Your task to perform on an android device: Go to Wikipedia Image 0: 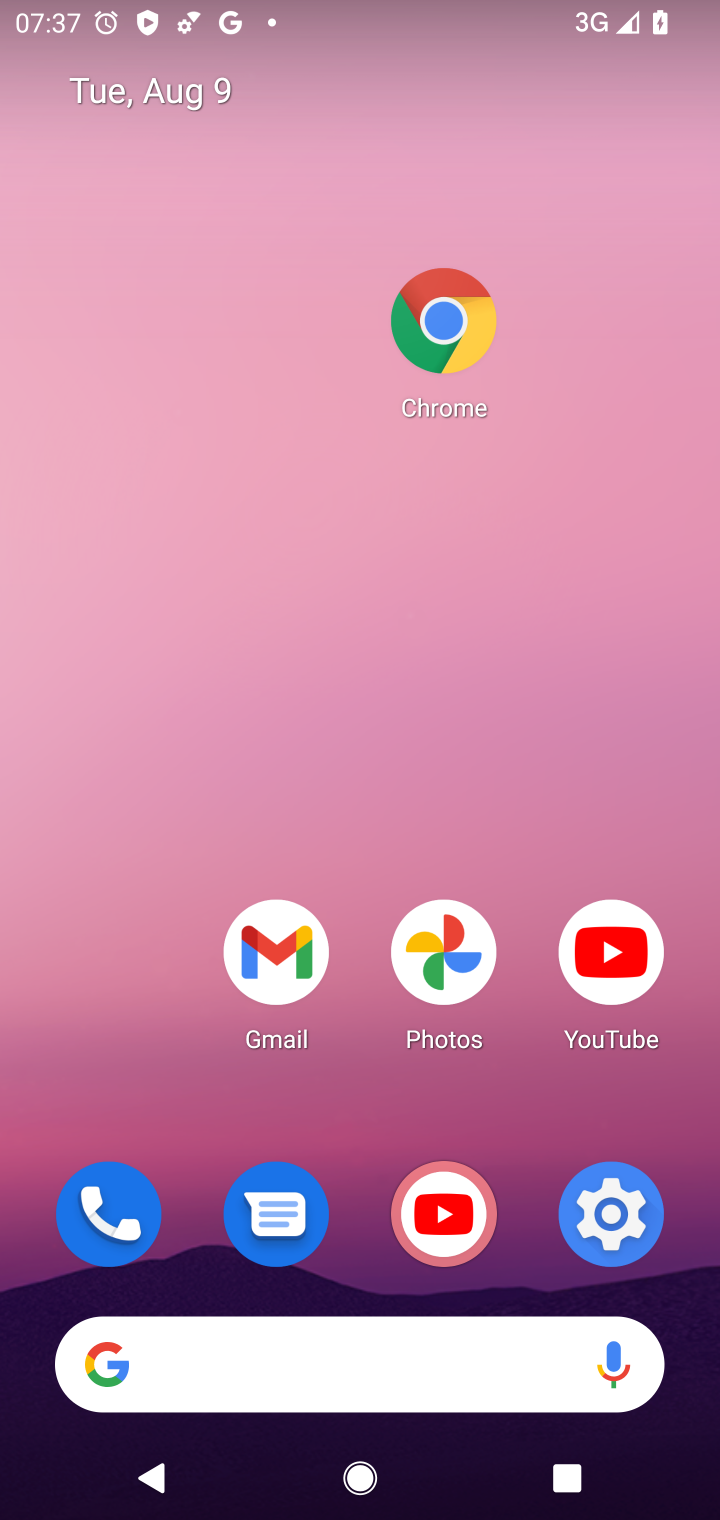
Step 0: drag from (504, 1405) to (300, 400)
Your task to perform on an android device: Go to Wikipedia Image 1: 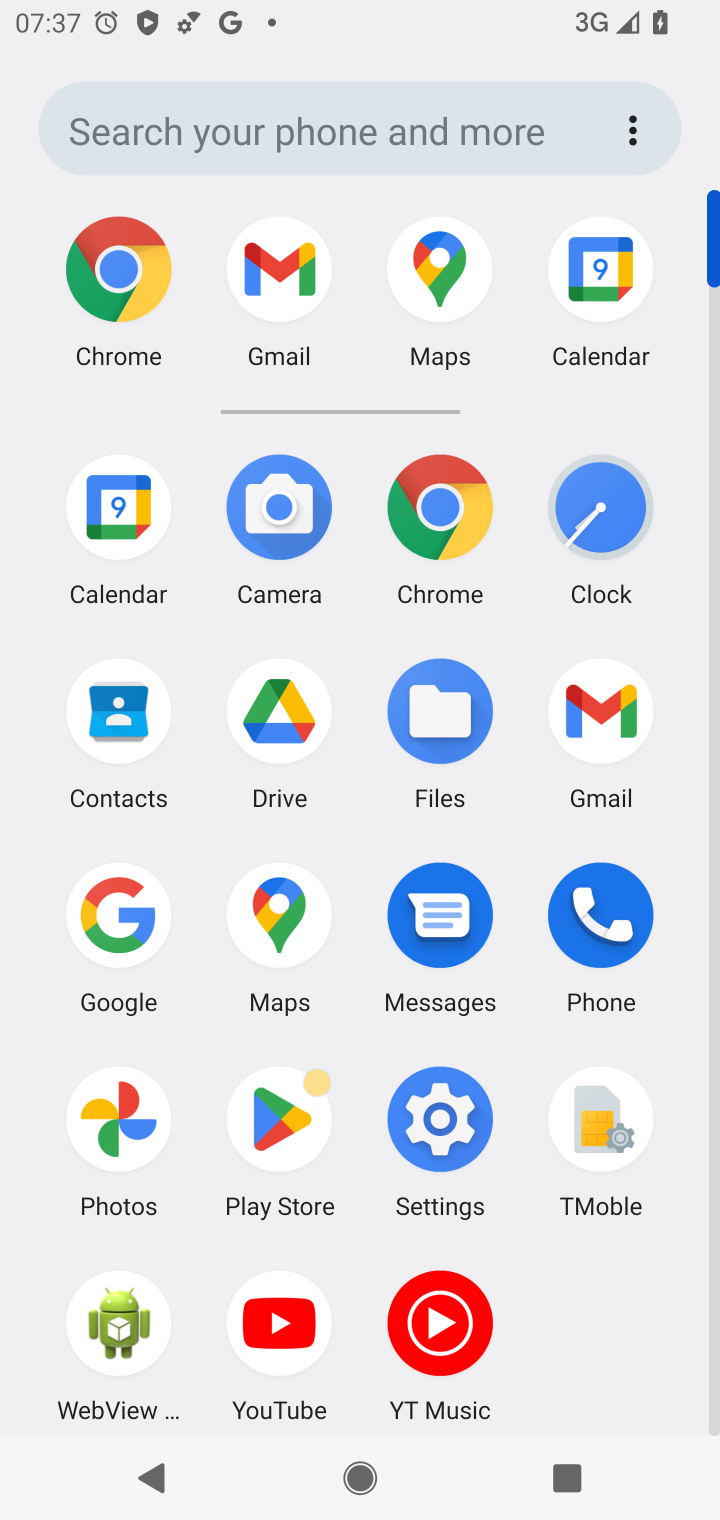
Step 1: click (101, 237)
Your task to perform on an android device: Go to Wikipedia Image 2: 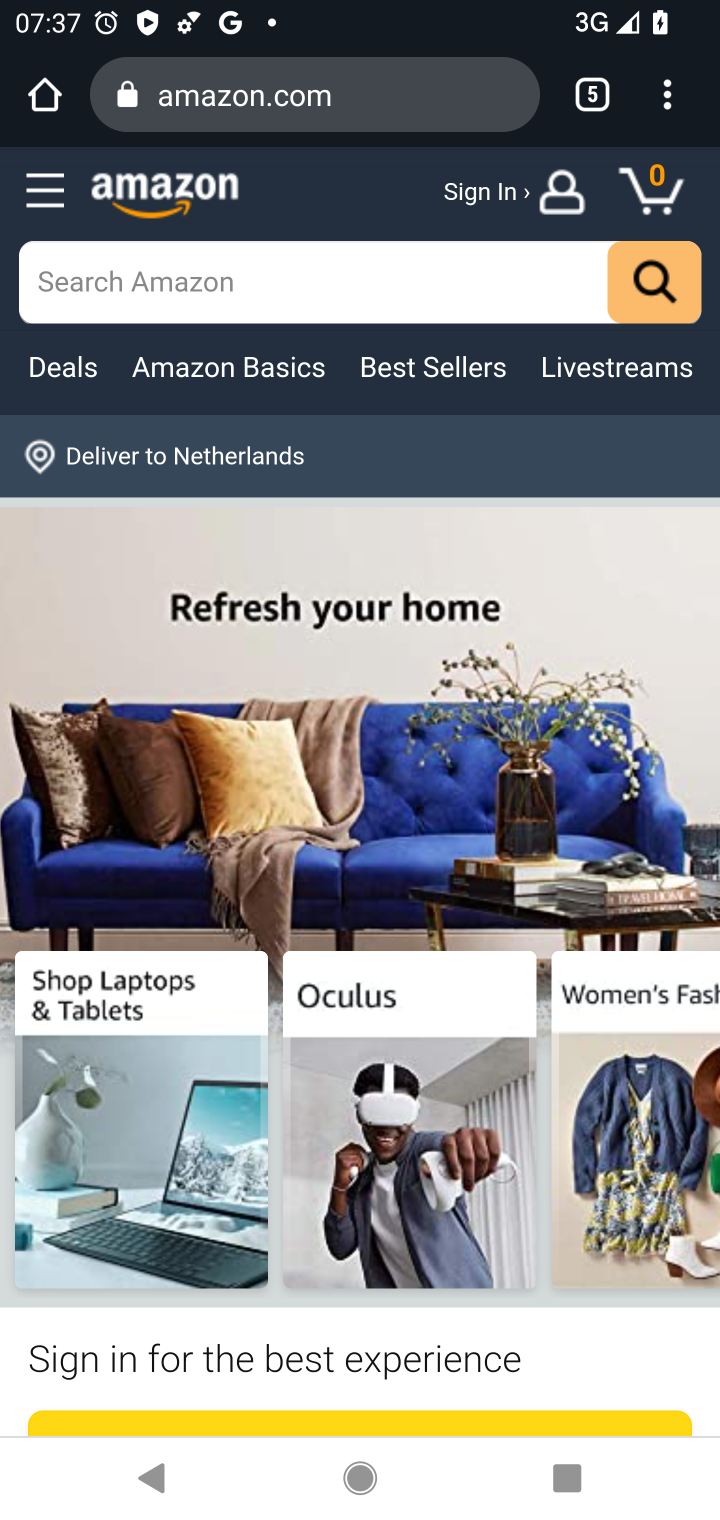
Step 2: click (246, 77)
Your task to perform on an android device: Go to Wikipedia Image 3: 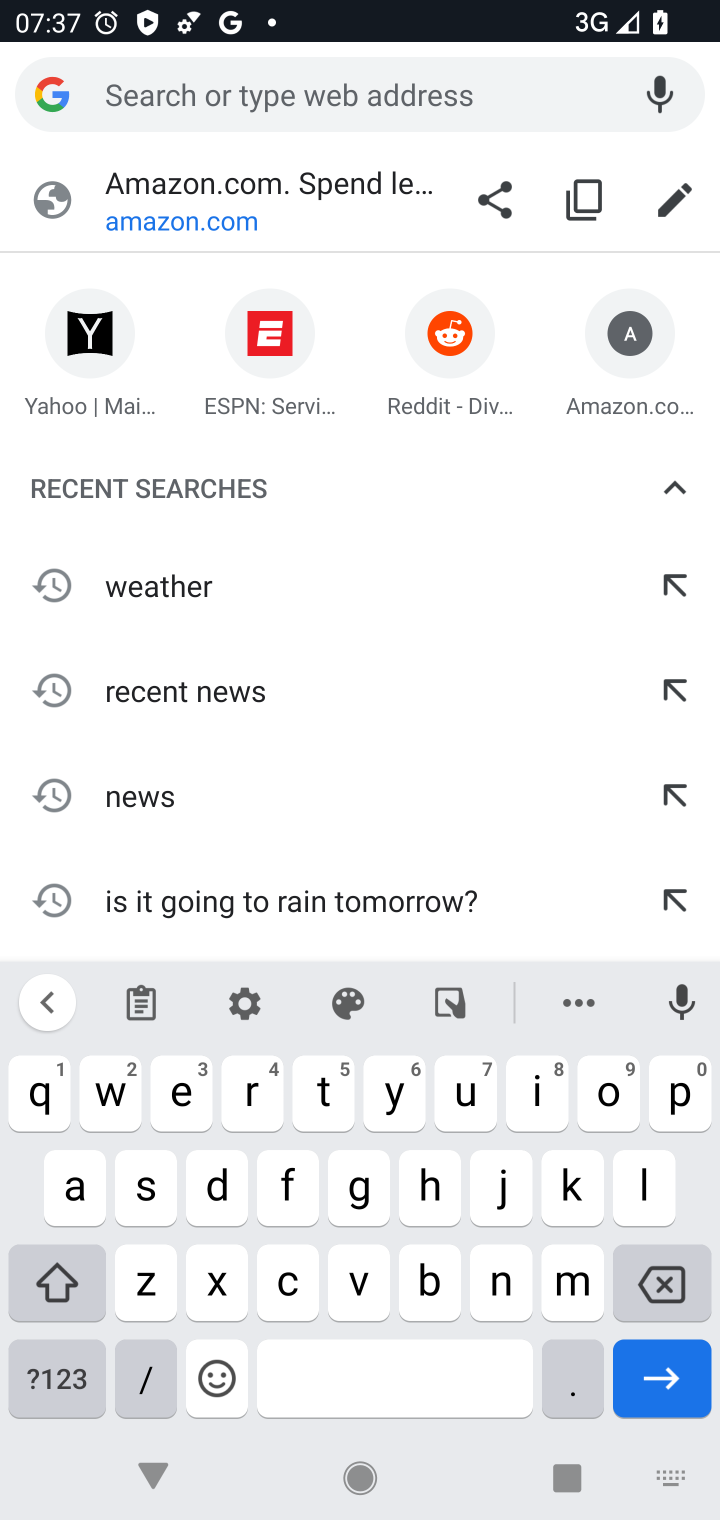
Step 3: click (101, 1076)
Your task to perform on an android device: Go to Wikipedia Image 4: 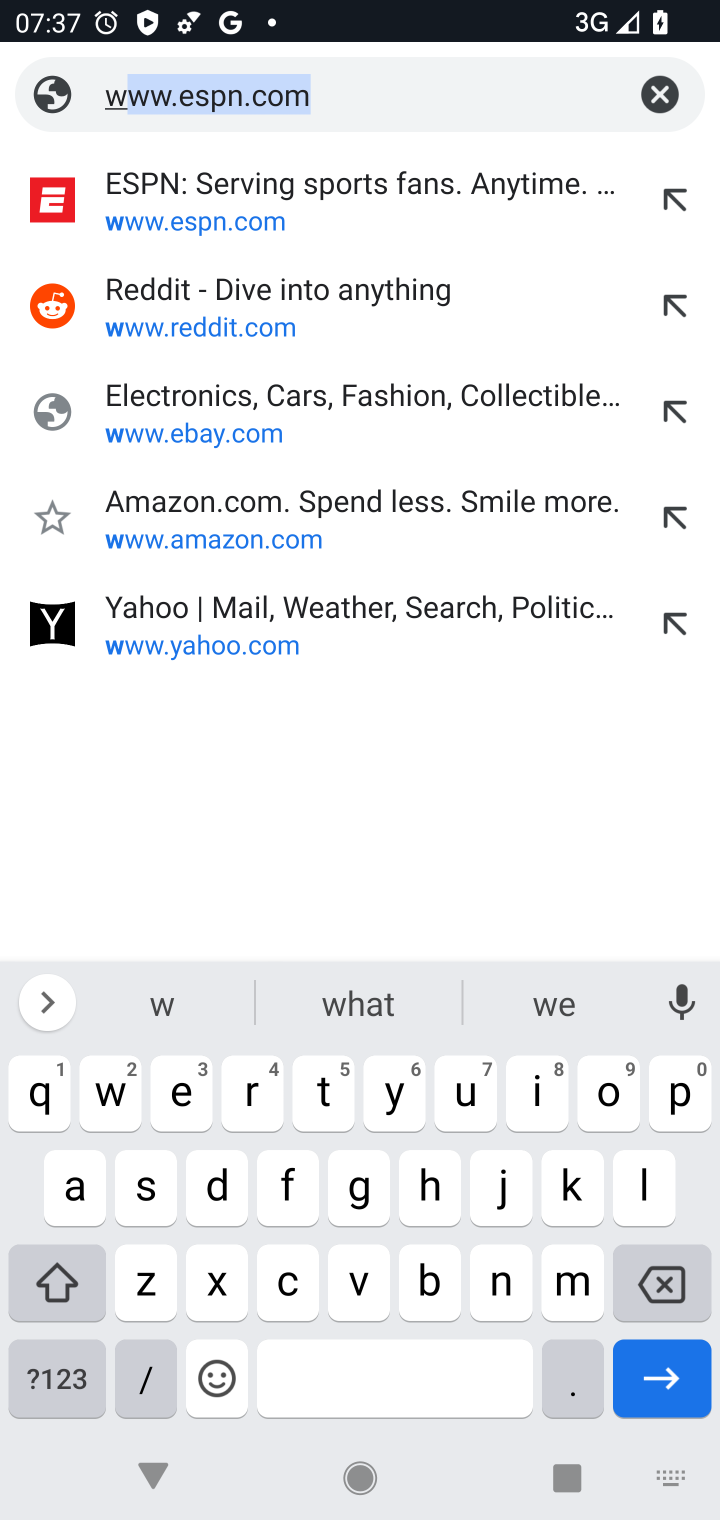
Step 4: click (548, 1108)
Your task to perform on an android device: Go to Wikipedia Image 5: 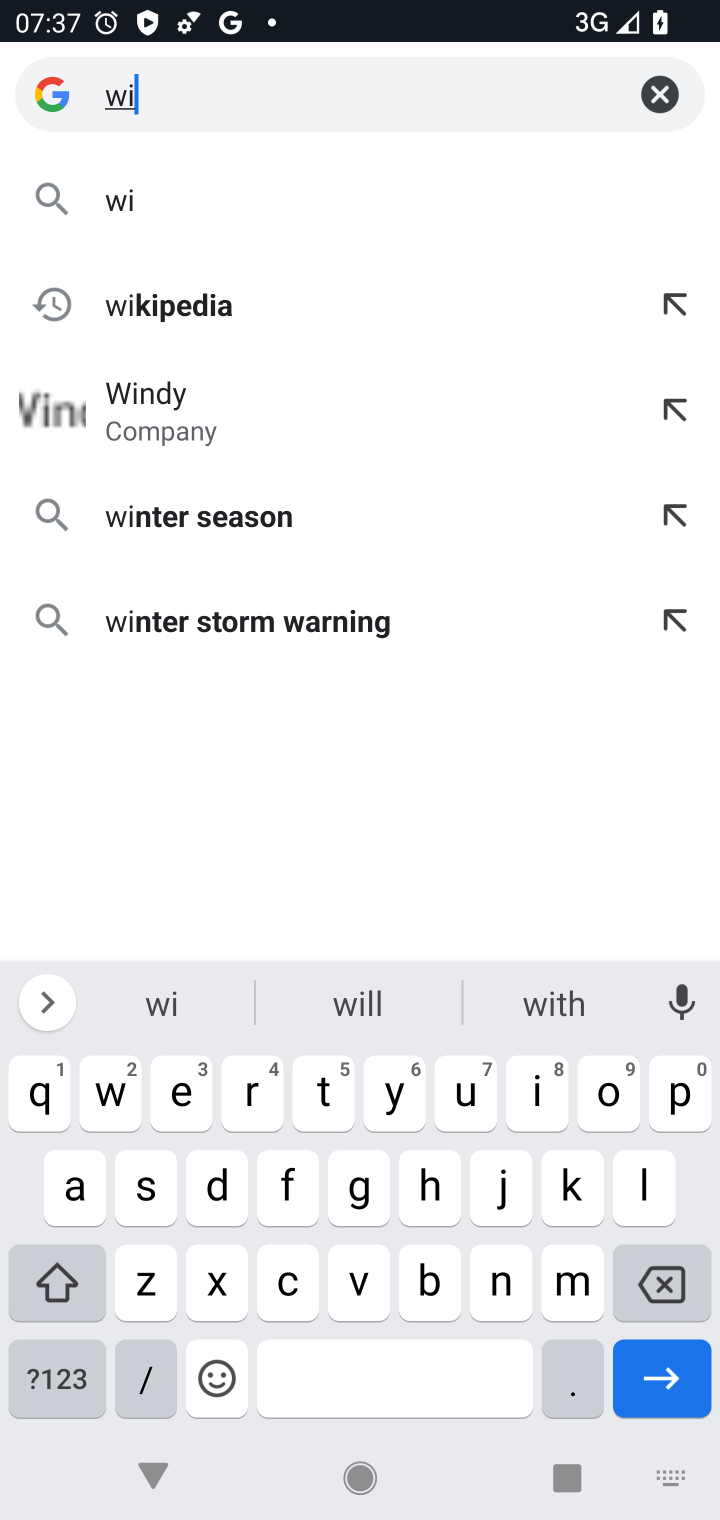
Step 5: click (184, 310)
Your task to perform on an android device: Go to Wikipedia Image 6: 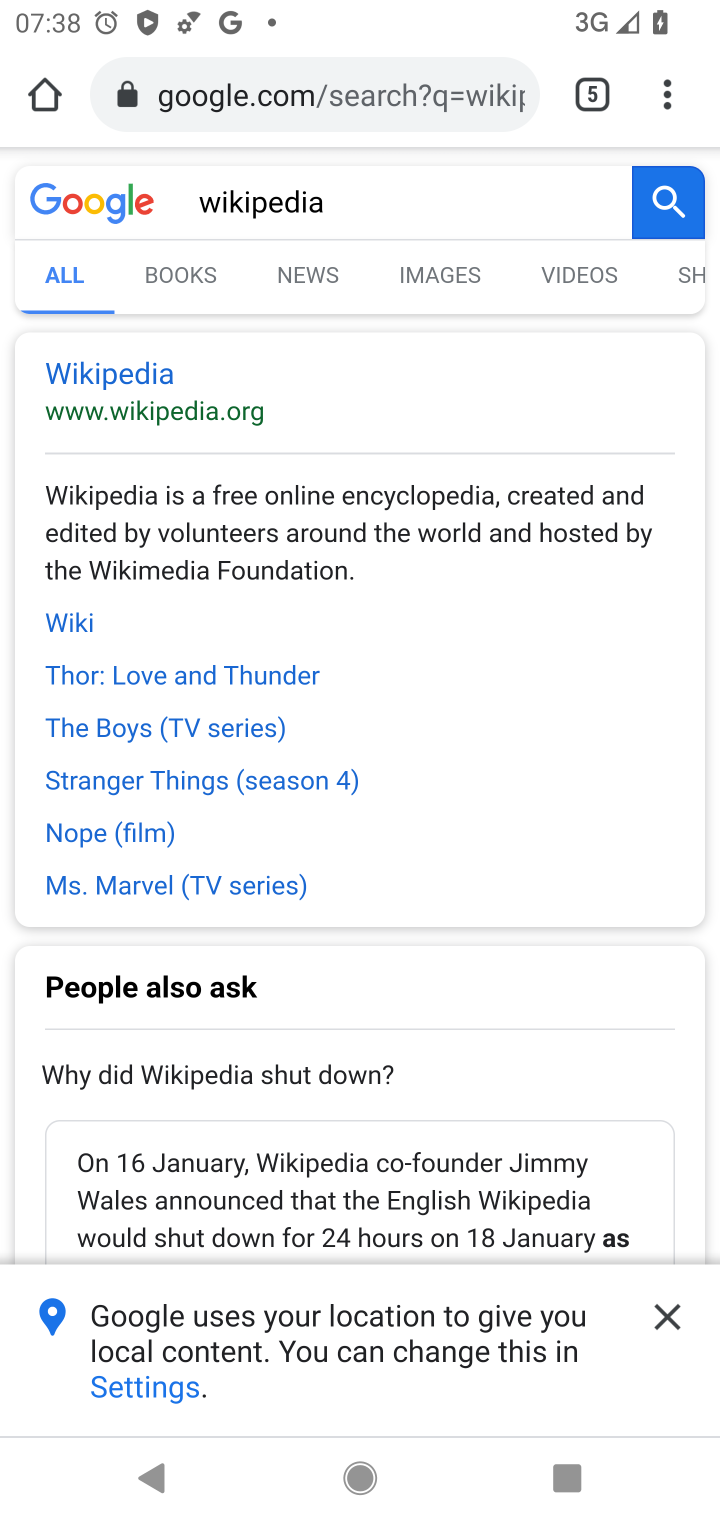
Step 6: click (120, 359)
Your task to perform on an android device: Go to Wikipedia Image 7: 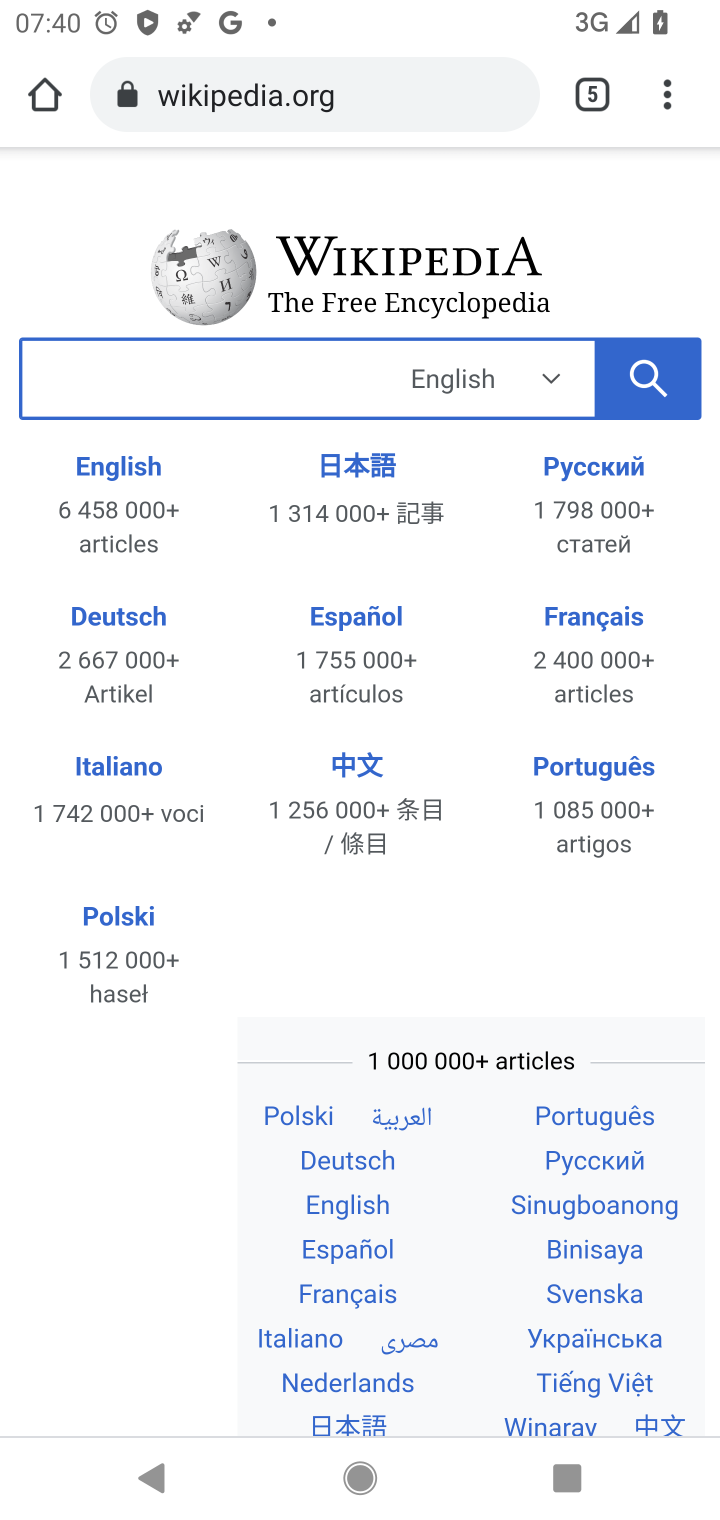
Step 7: task complete